Your task to perform on an android device: visit the assistant section in the google photos Image 0: 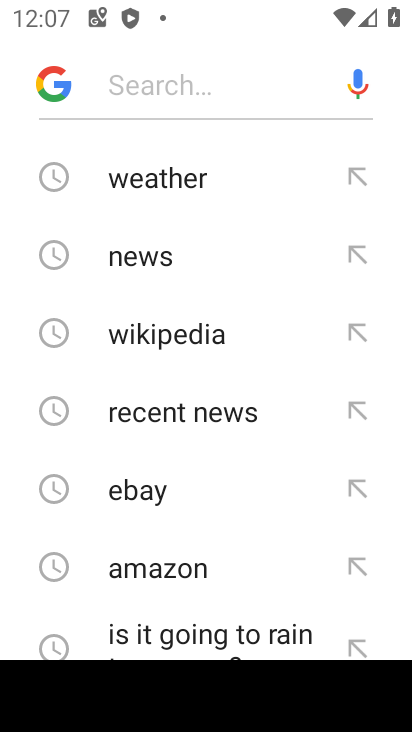
Step 0: press back button
Your task to perform on an android device: visit the assistant section in the google photos Image 1: 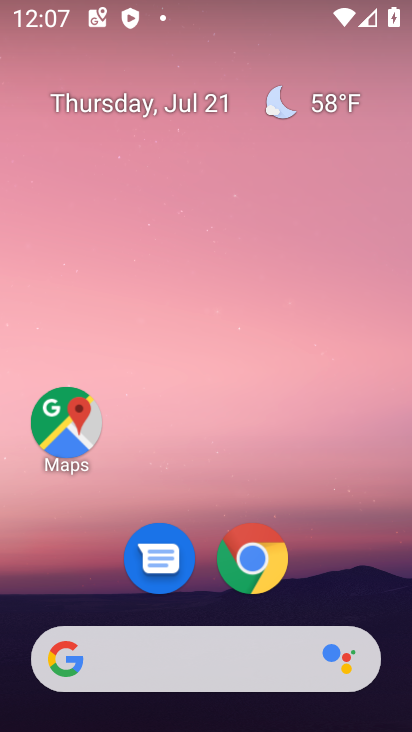
Step 1: drag from (103, 529) to (231, 0)
Your task to perform on an android device: visit the assistant section in the google photos Image 2: 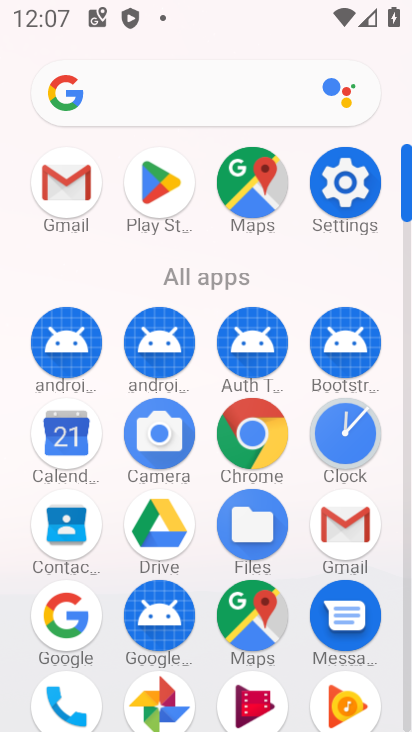
Step 2: drag from (227, 668) to (222, 173)
Your task to perform on an android device: visit the assistant section in the google photos Image 3: 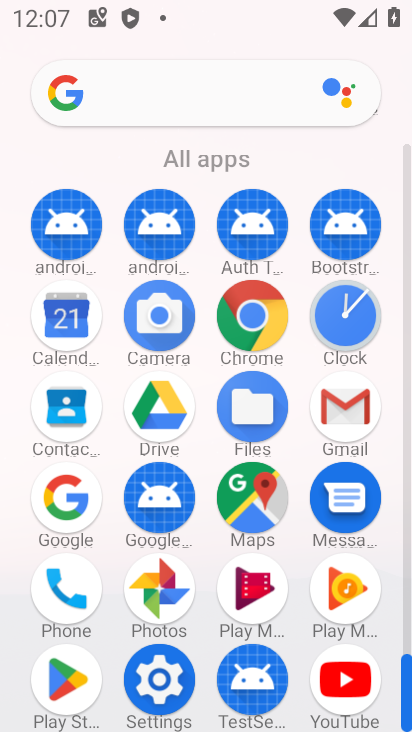
Step 3: click (151, 576)
Your task to perform on an android device: visit the assistant section in the google photos Image 4: 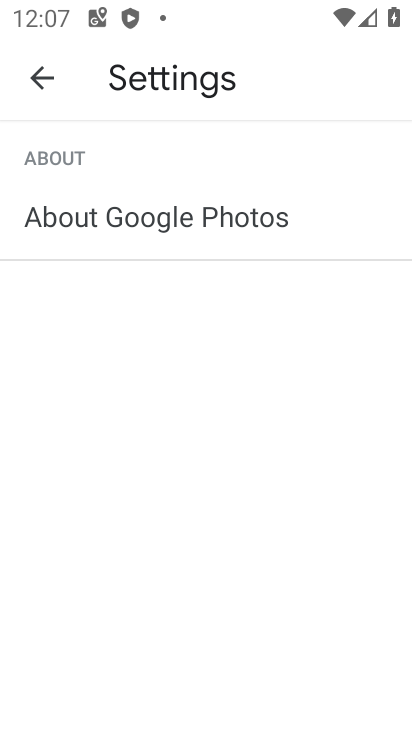
Step 4: click (35, 70)
Your task to perform on an android device: visit the assistant section in the google photos Image 5: 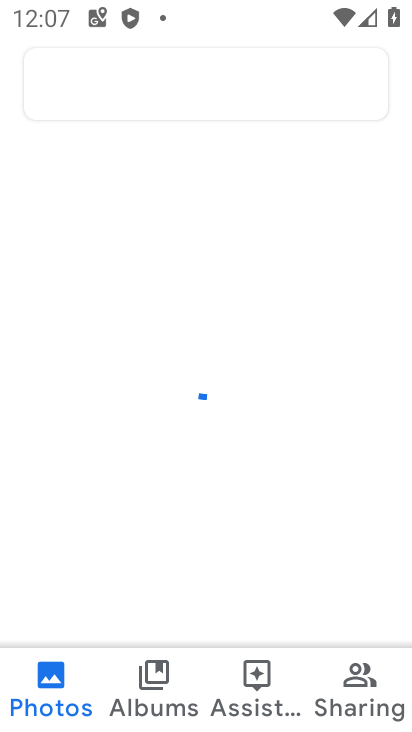
Step 5: click (241, 696)
Your task to perform on an android device: visit the assistant section in the google photos Image 6: 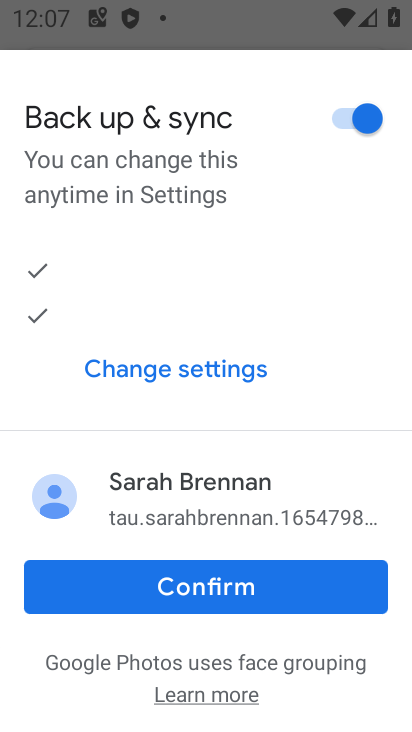
Step 6: click (202, 595)
Your task to perform on an android device: visit the assistant section in the google photos Image 7: 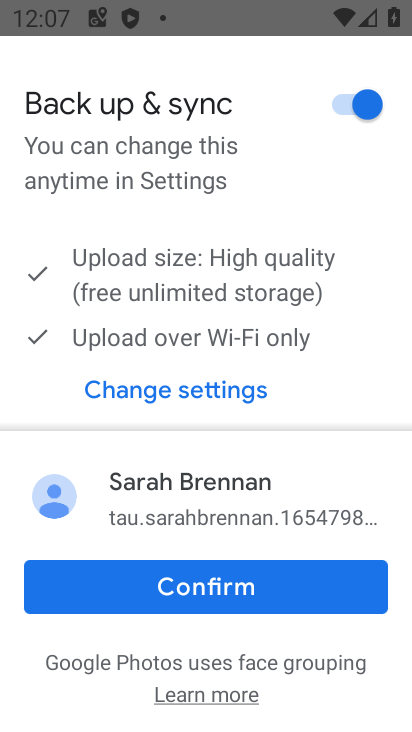
Step 7: click (209, 605)
Your task to perform on an android device: visit the assistant section in the google photos Image 8: 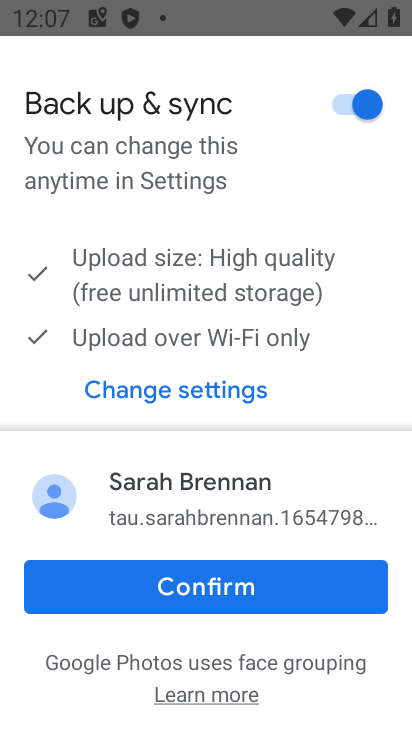
Step 8: click (238, 588)
Your task to perform on an android device: visit the assistant section in the google photos Image 9: 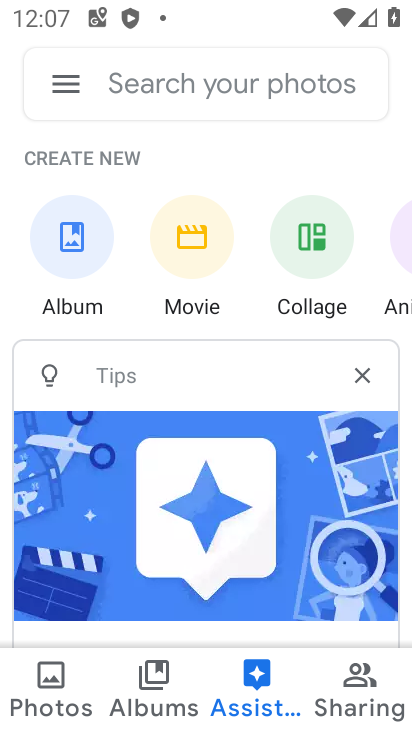
Step 9: task complete